Your task to perform on an android device: open app "Google Maps" (install if not already installed) Image 0: 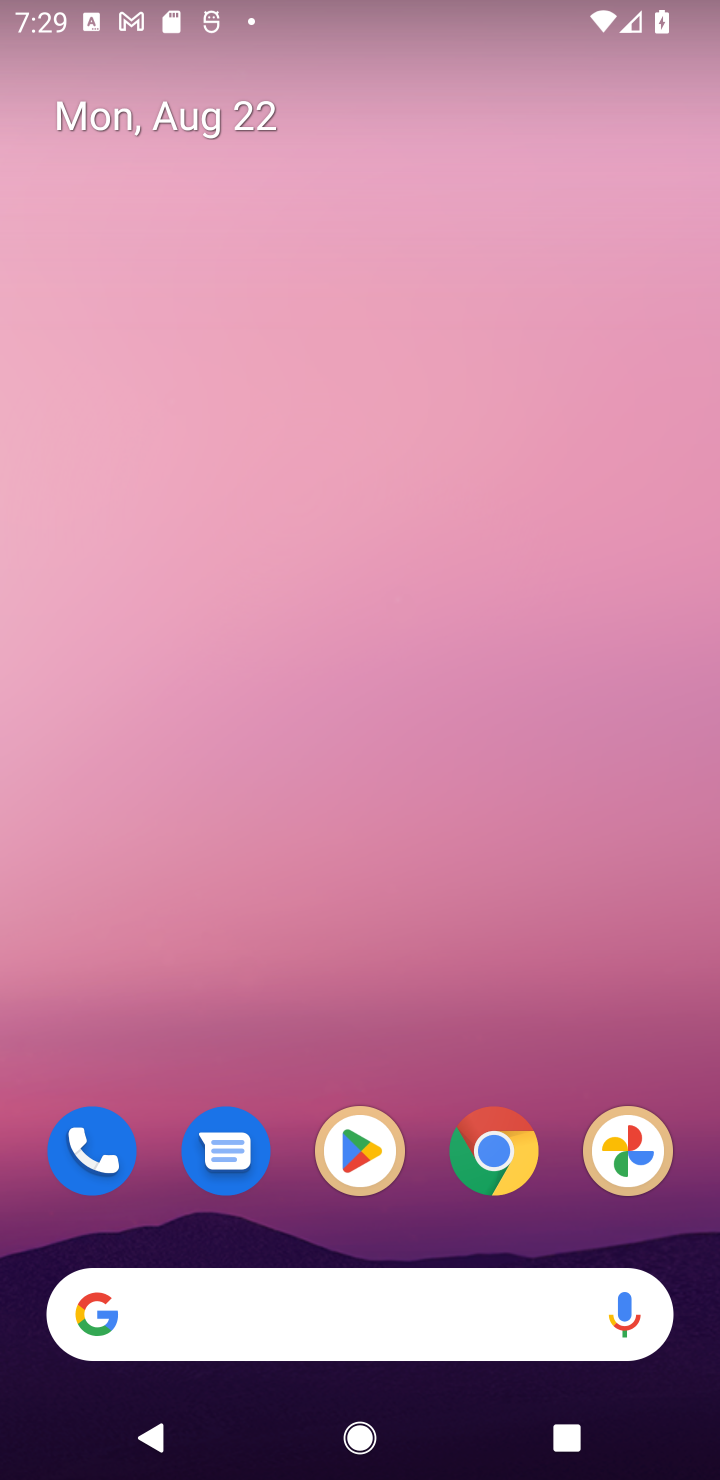
Step 0: press home button
Your task to perform on an android device: open app "Google Maps" (install if not already installed) Image 1: 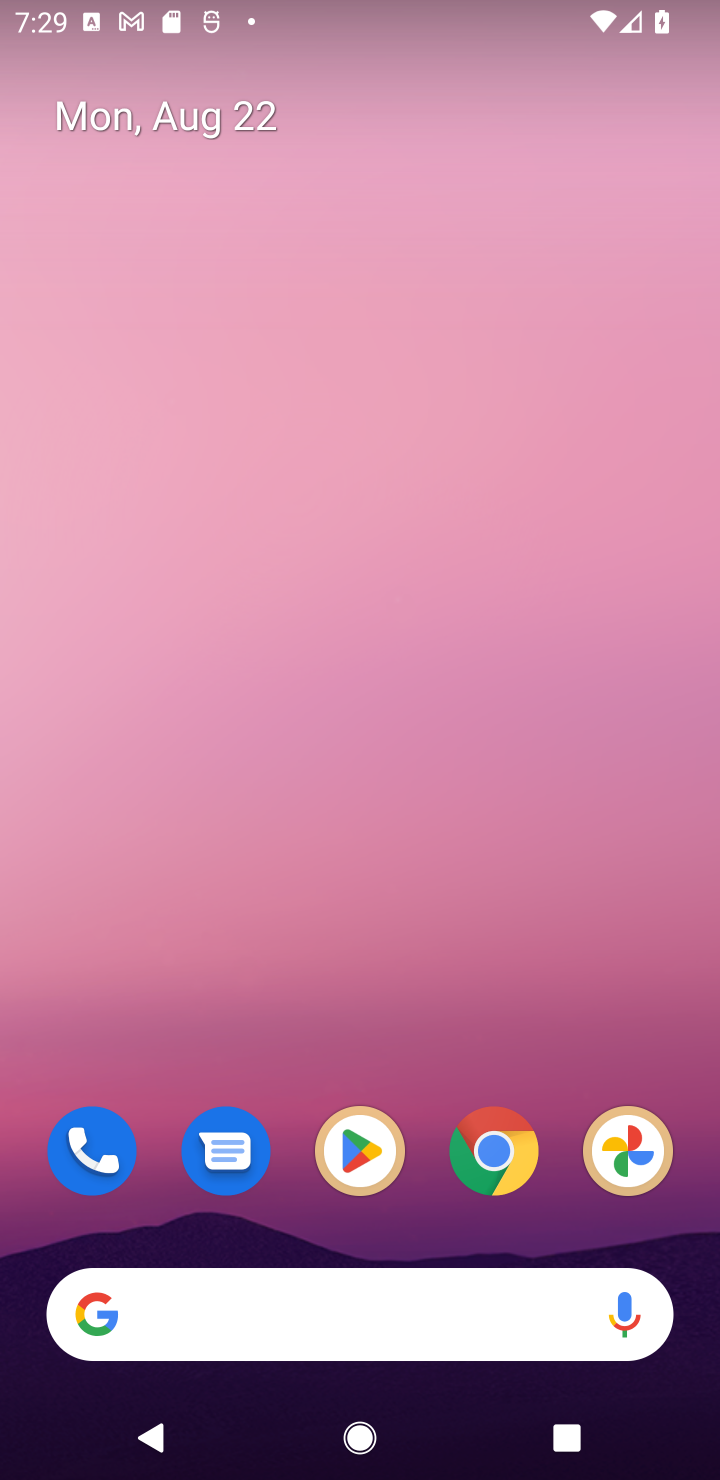
Step 1: click (351, 1155)
Your task to perform on an android device: open app "Google Maps" (install if not already installed) Image 2: 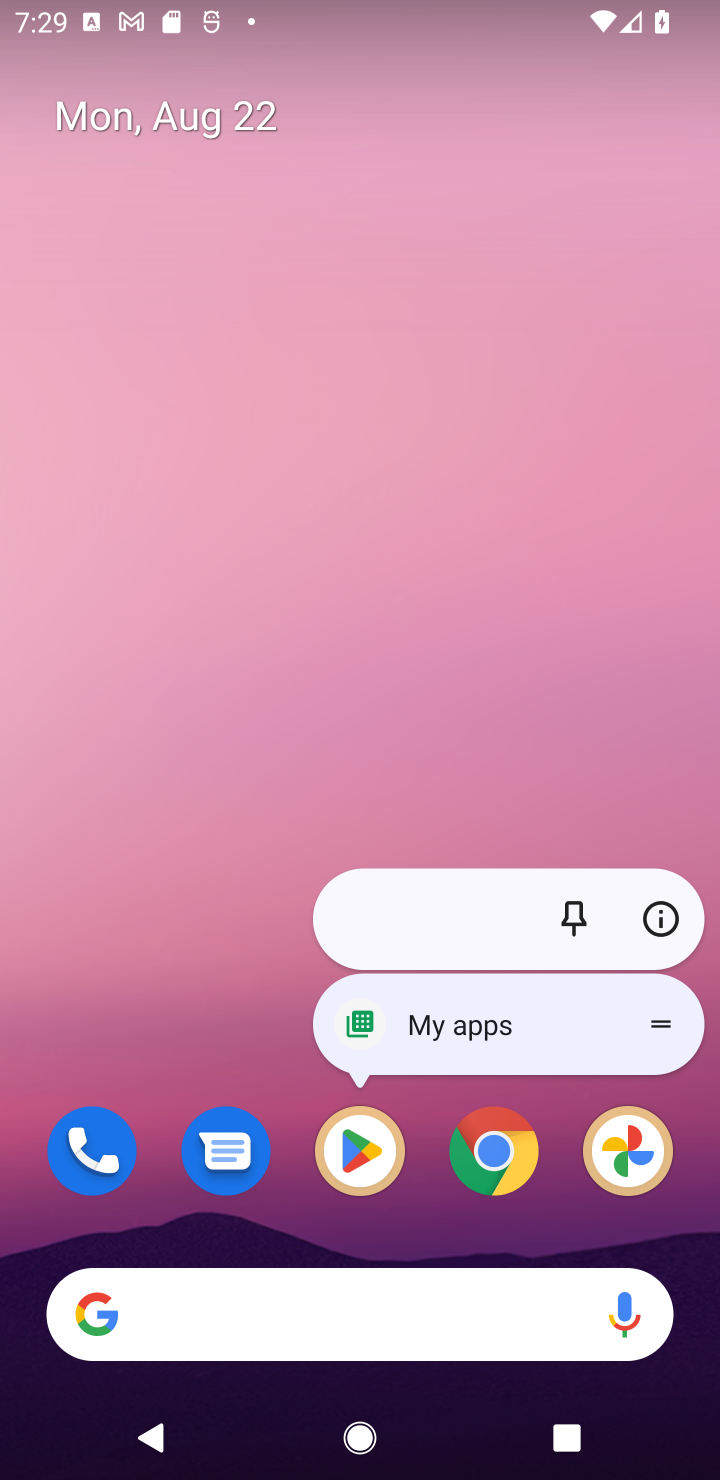
Step 2: click (351, 1153)
Your task to perform on an android device: open app "Google Maps" (install if not already installed) Image 3: 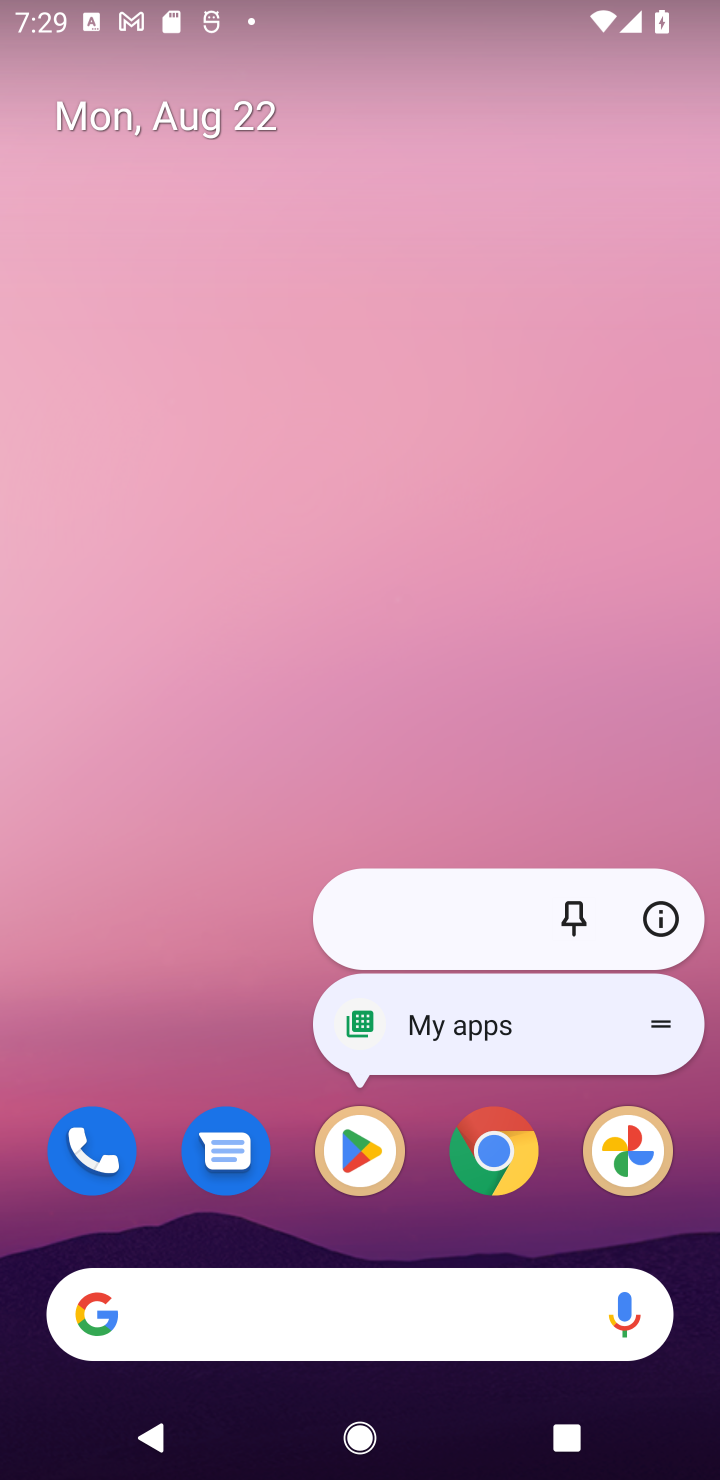
Step 3: click (366, 1150)
Your task to perform on an android device: open app "Google Maps" (install if not already installed) Image 4: 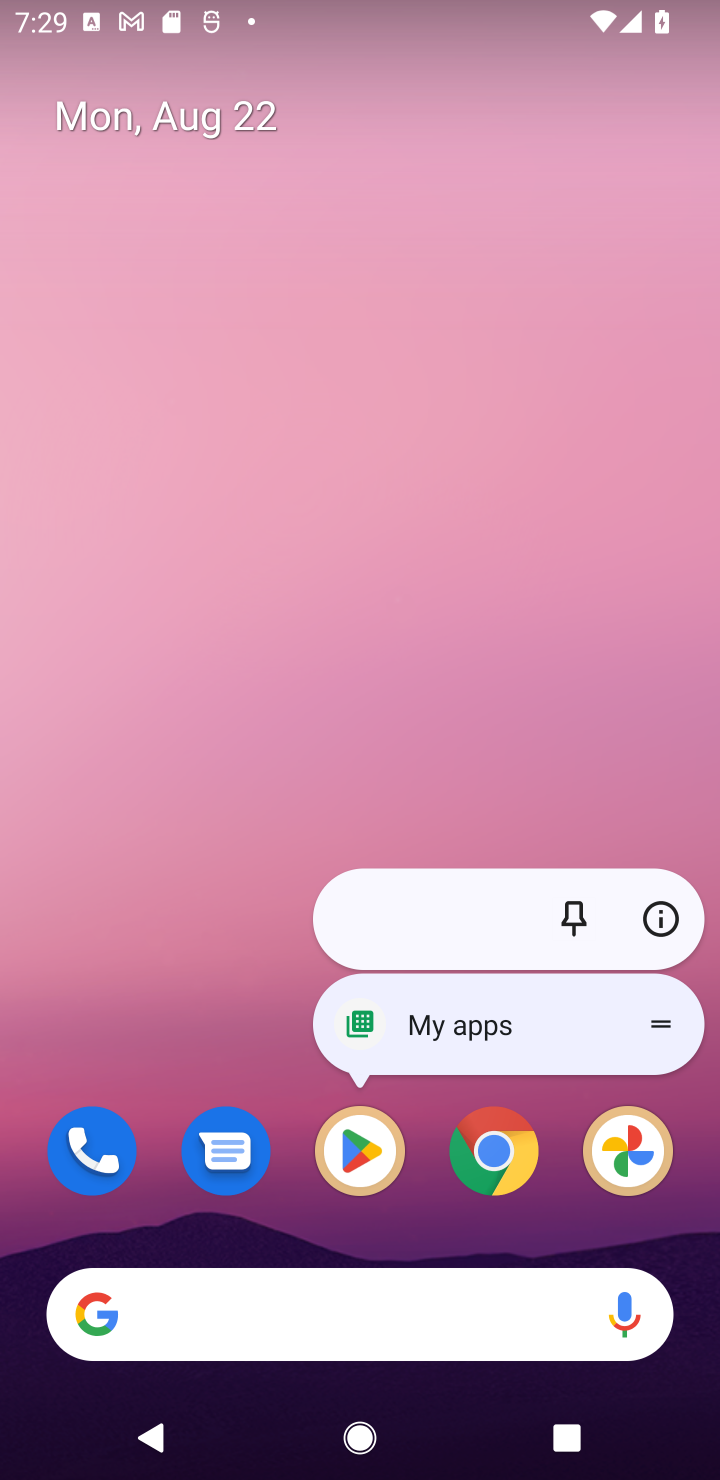
Step 4: click (351, 1156)
Your task to perform on an android device: open app "Google Maps" (install if not already installed) Image 5: 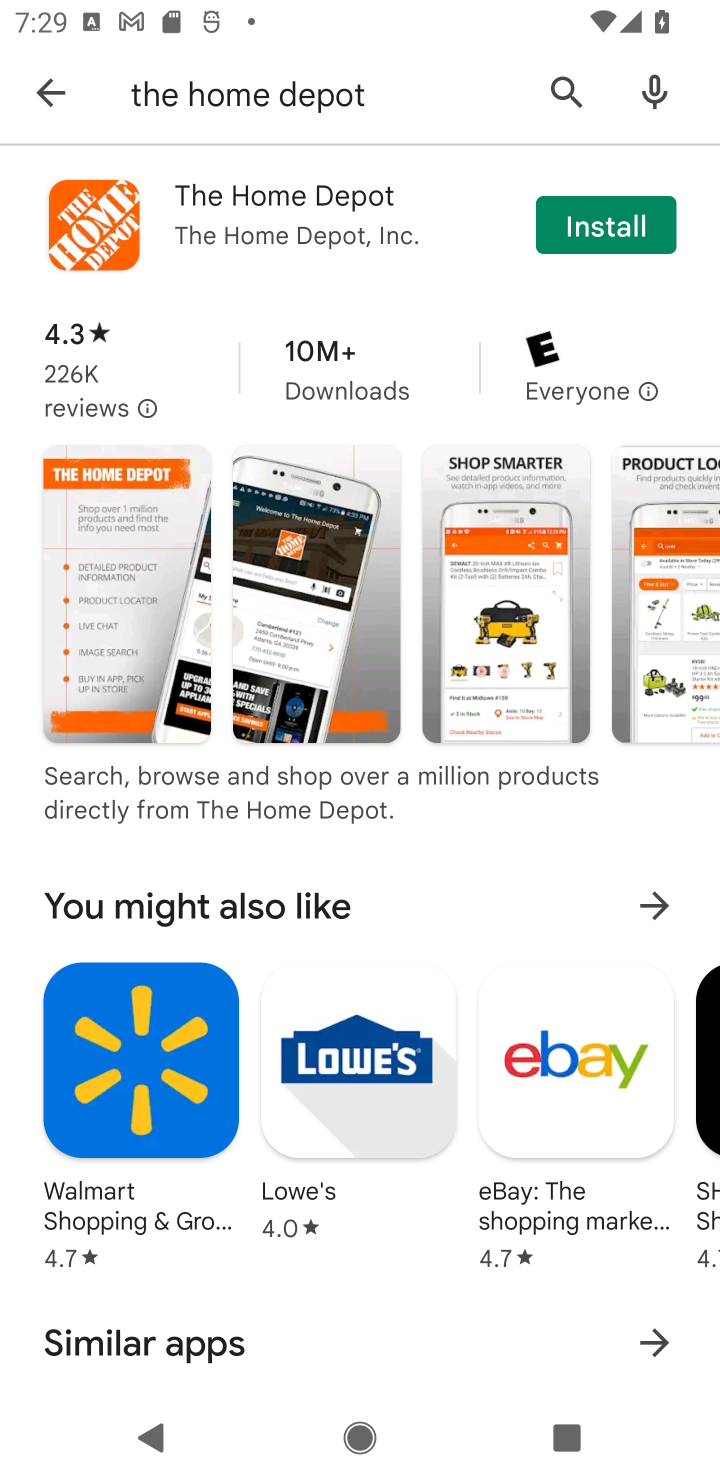
Step 5: click (574, 78)
Your task to perform on an android device: open app "Google Maps" (install if not already installed) Image 6: 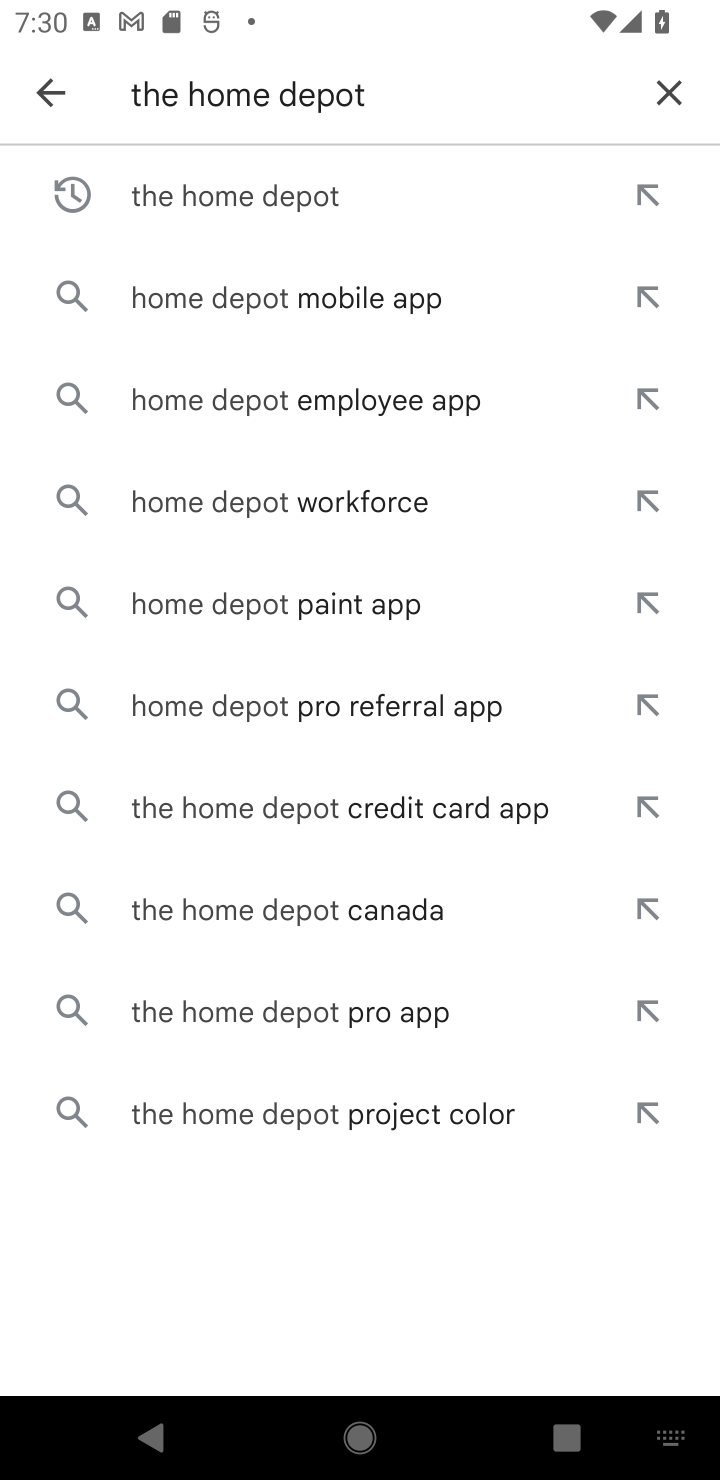
Step 6: click (651, 78)
Your task to perform on an android device: open app "Google Maps" (install if not already installed) Image 7: 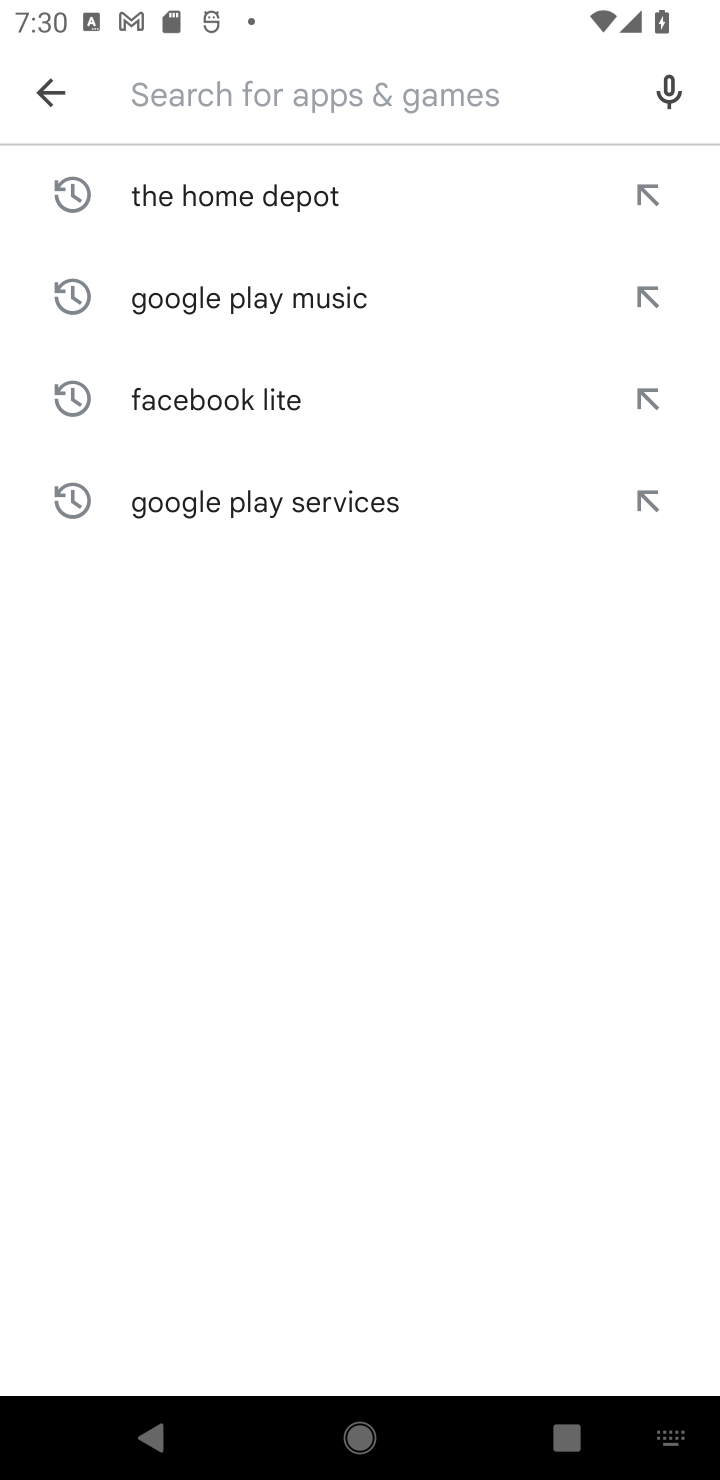
Step 7: type "Google Maps"
Your task to perform on an android device: open app "Google Maps" (install if not already installed) Image 8: 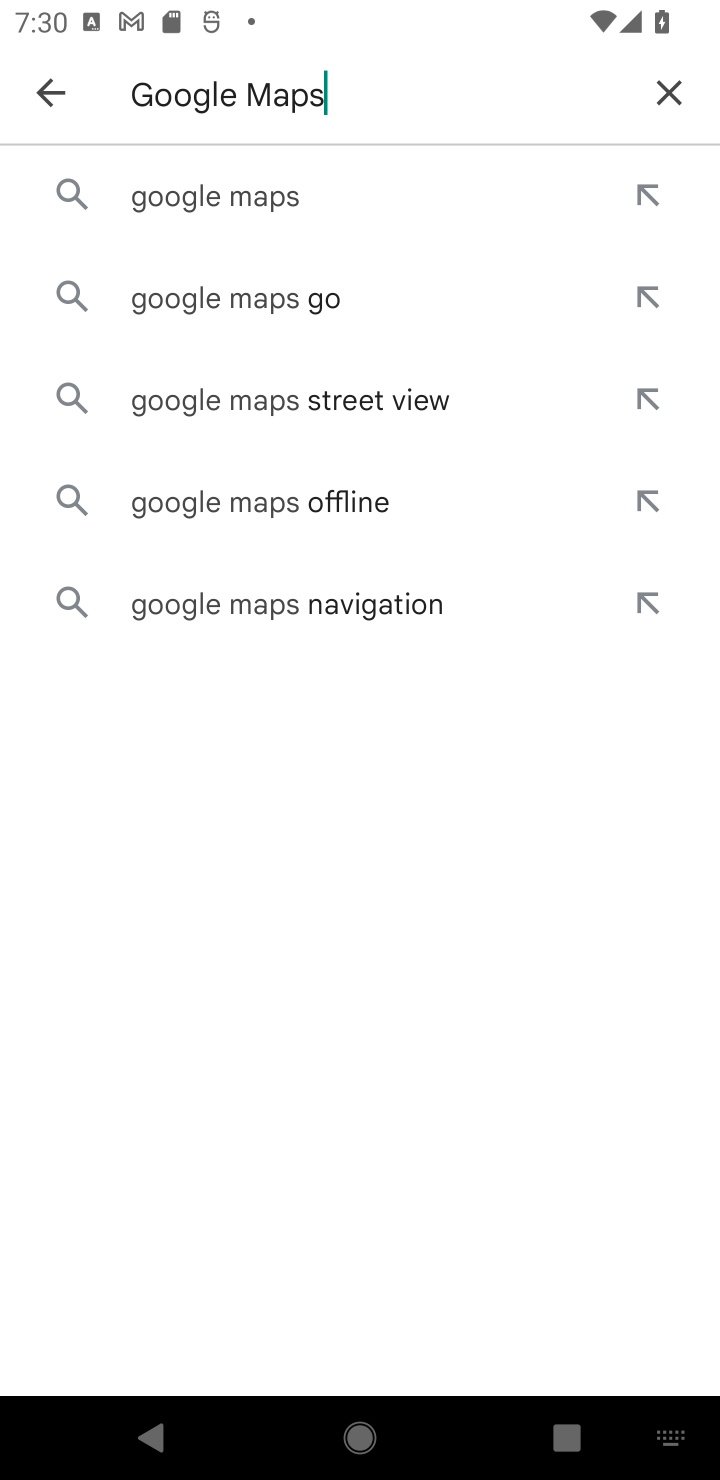
Step 8: click (277, 198)
Your task to perform on an android device: open app "Google Maps" (install if not already installed) Image 9: 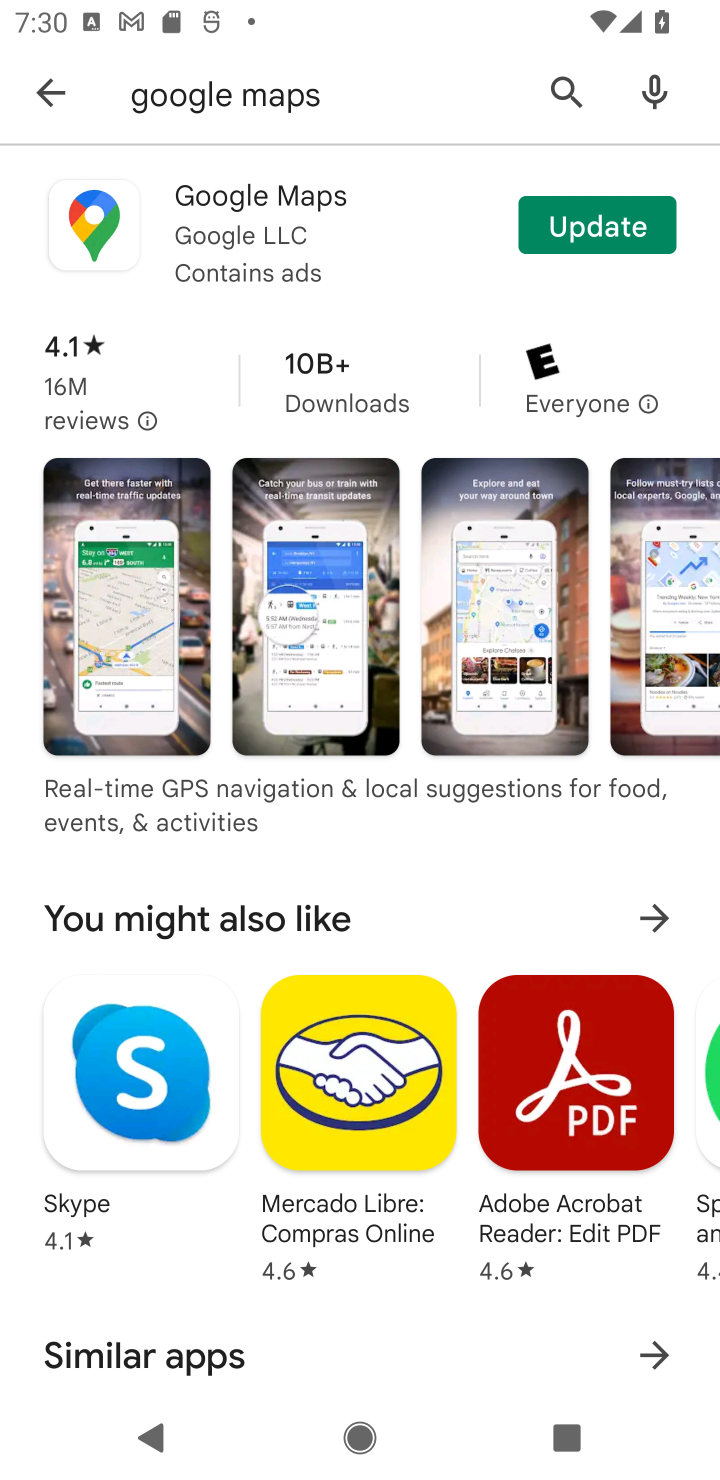
Step 9: click (196, 204)
Your task to perform on an android device: open app "Google Maps" (install if not already installed) Image 10: 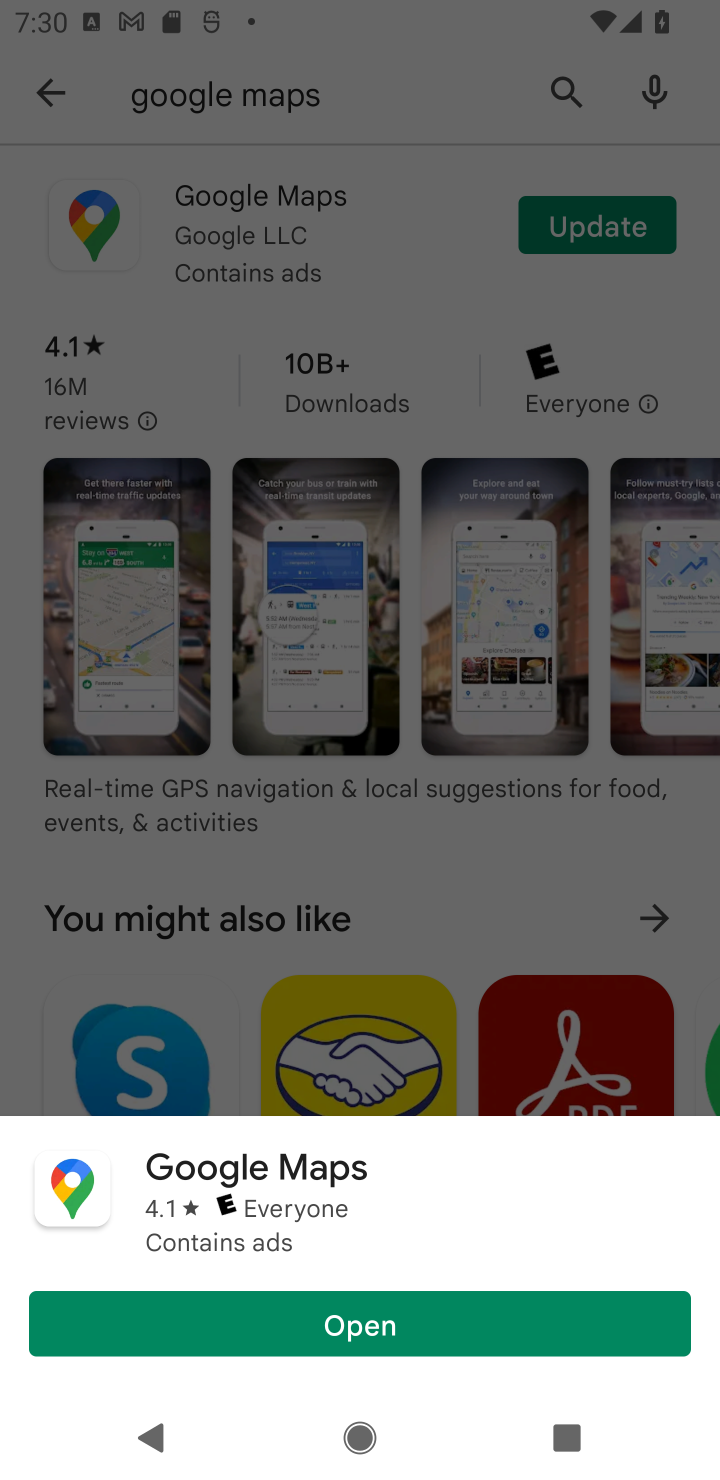
Step 10: click (384, 1323)
Your task to perform on an android device: open app "Google Maps" (install if not already installed) Image 11: 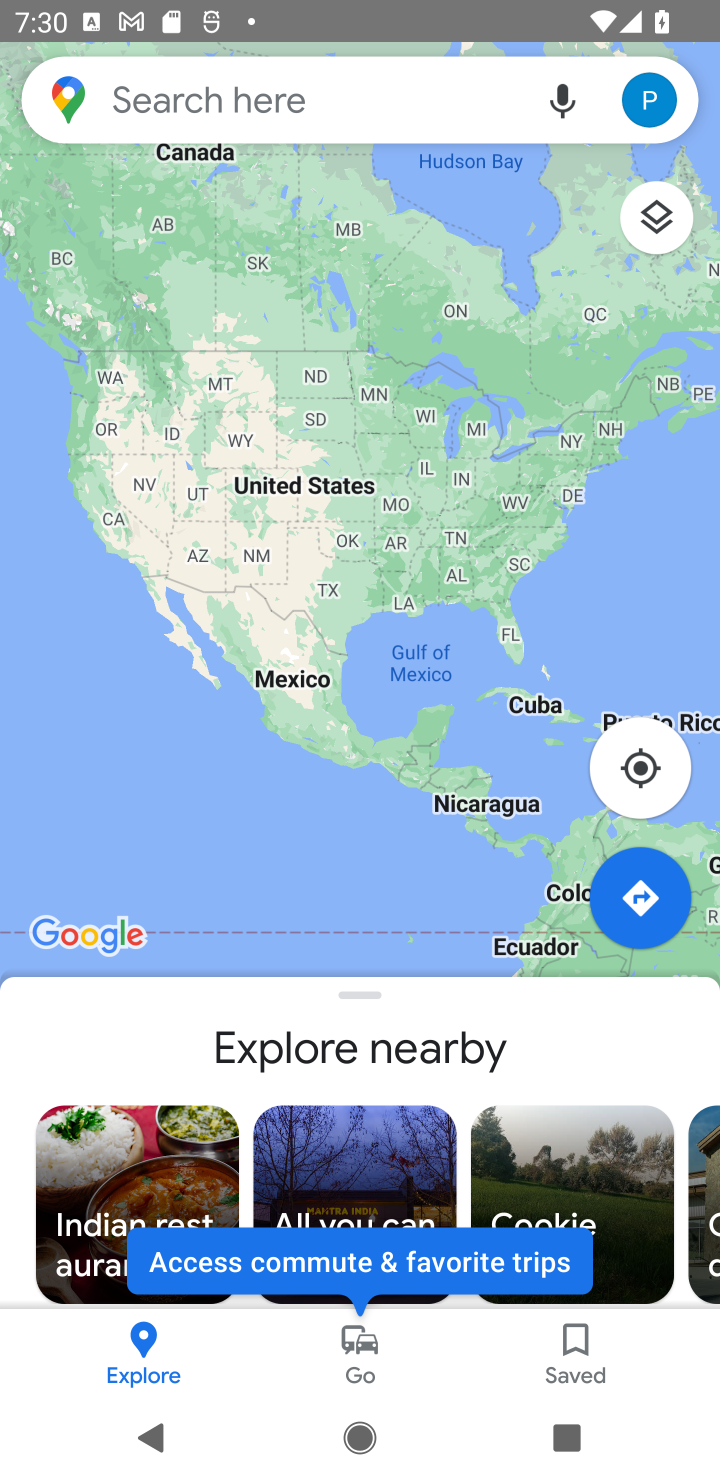
Step 11: task complete